Your task to perform on an android device: Show me productivity apps on the Play Store Image 0: 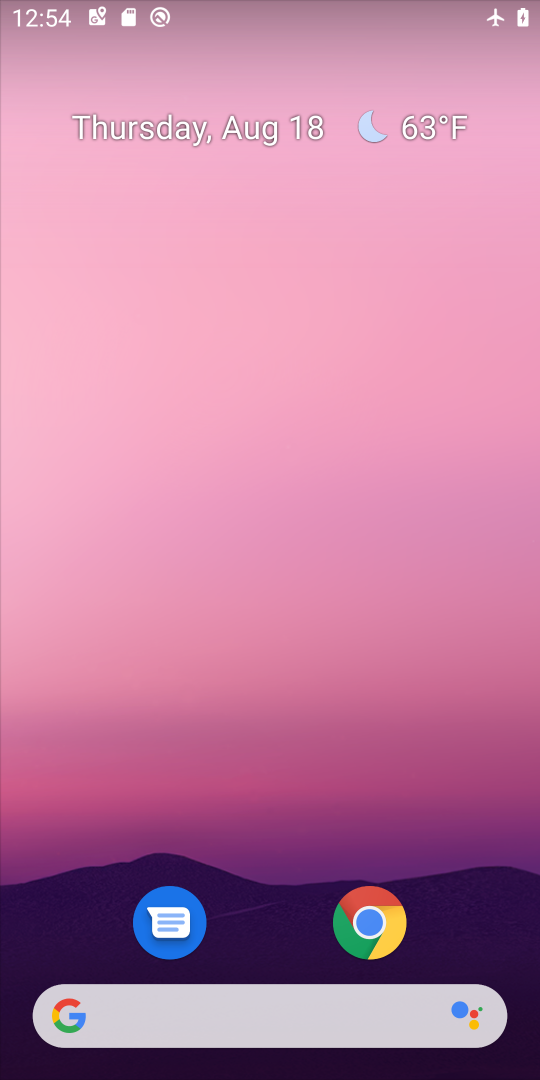
Step 0: drag from (281, 934) to (235, 214)
Your task to perform on an android device: Show me productivity apps on the Play Store Image 1: 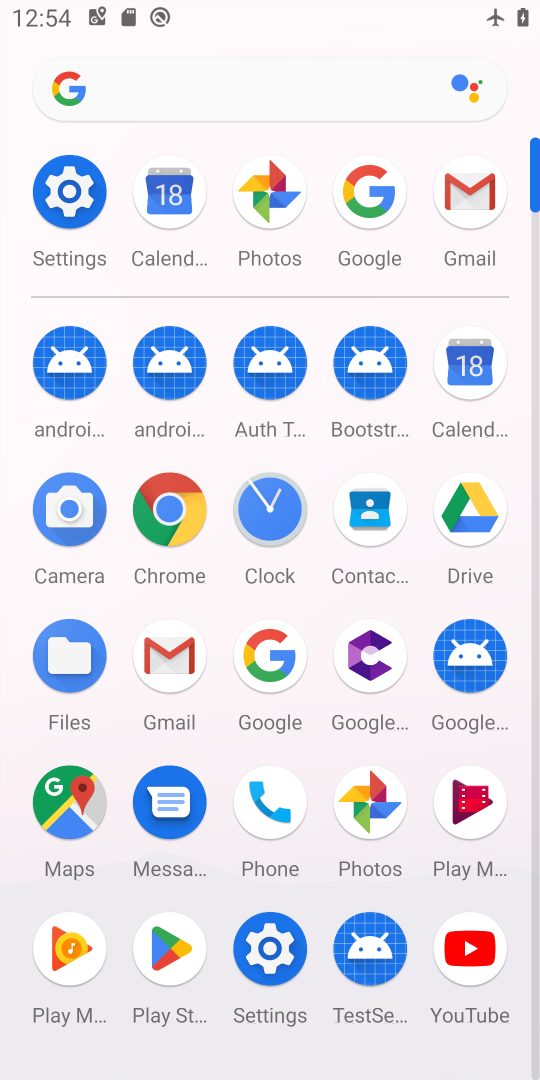
Step 1: click (167, 947)
Your task to perform on an android device: Show me productivity apps on the Play Store Image 2: 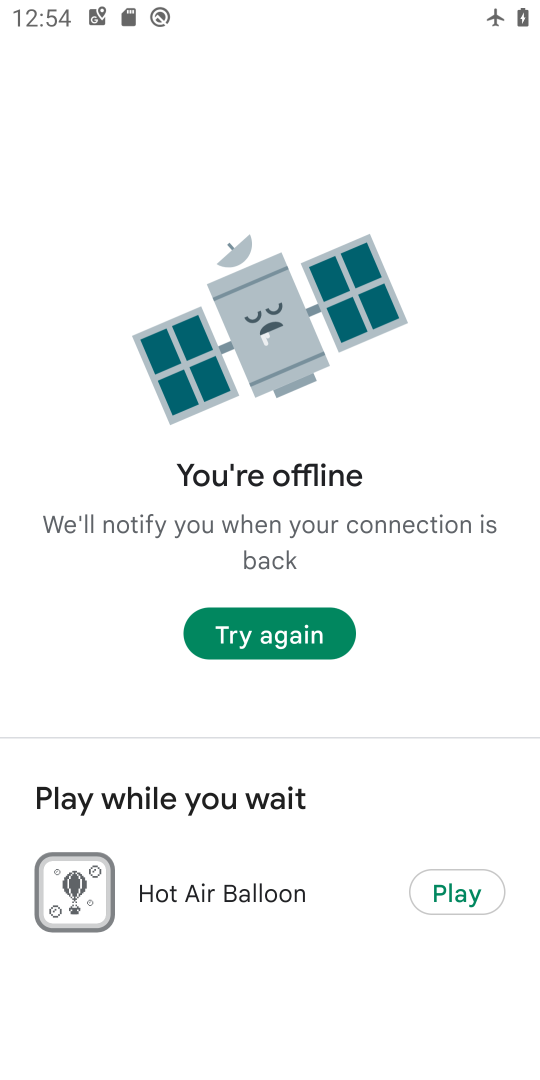
Step 2: click (272, 654)
Your task to perform on an android device: Show me productivity apps on the Play Store Image 3: 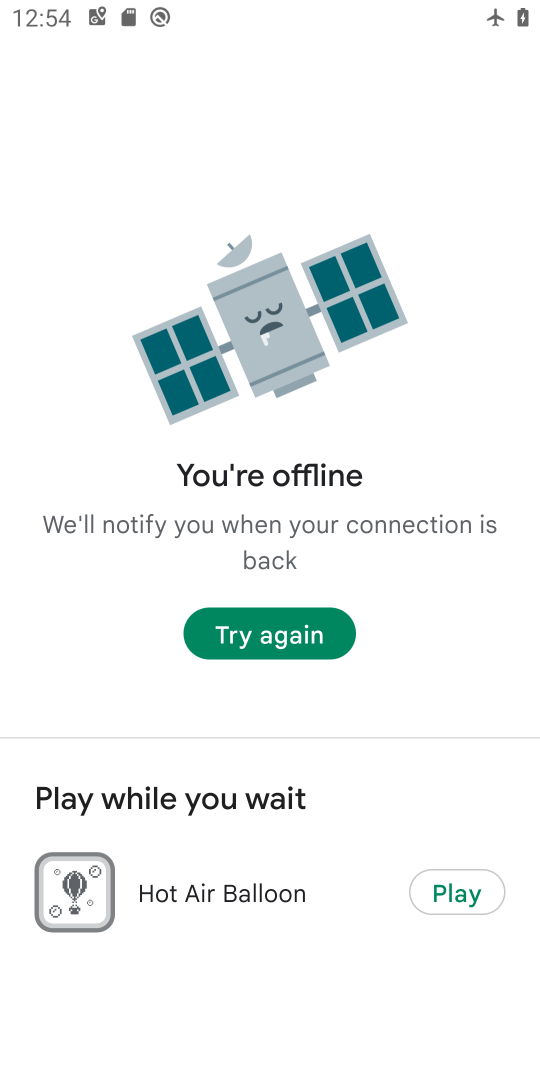
Step 3: task complete